Your task to perform on an android device: turn off priority inbox in the gmail app Image 0: 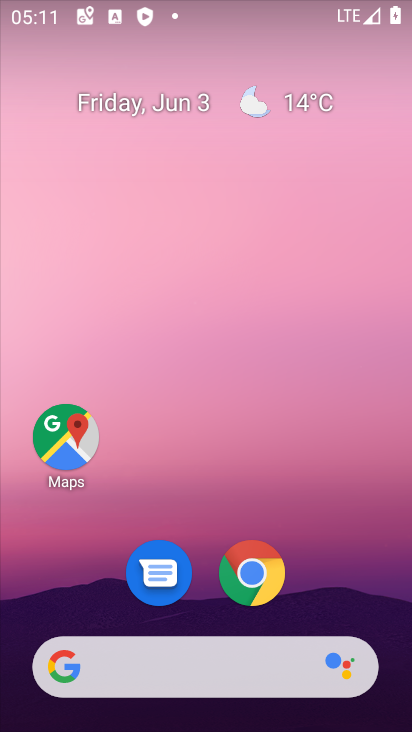
Step 0: drag from (362, 497) to (307, 229)
Your task to perform on an android device: turn off priority inbox in the gmail app Image 1: 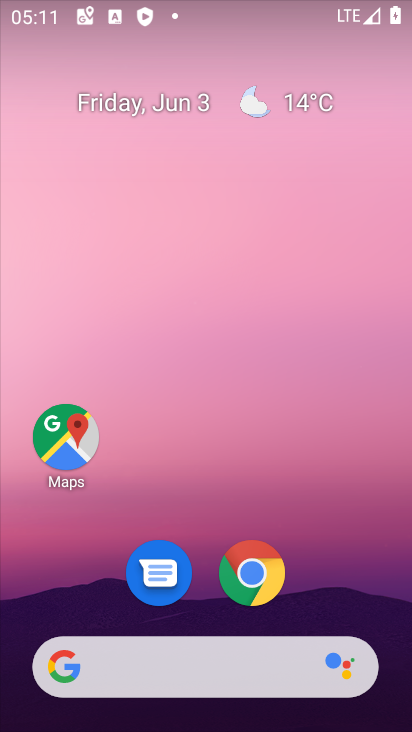
Step 1: drag from (337, 588) to (248, 130)
Your task to perform on an android device: turn off priority inbox in the gmail app Image 2: 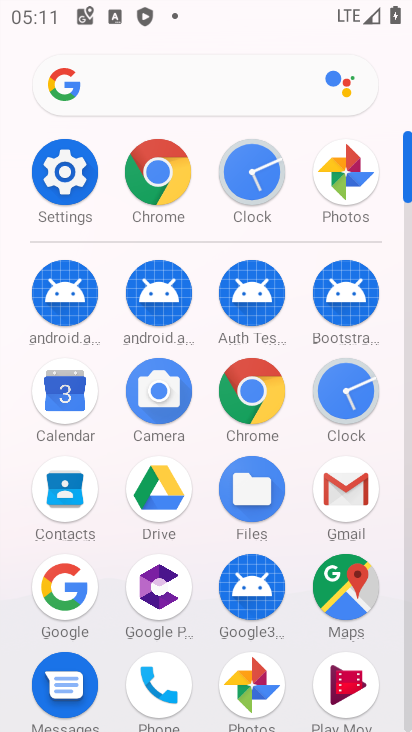
Step 2: click (351, 497)
Your task to perform on an android device: turn off priority inbox in the gmail app Image 3: 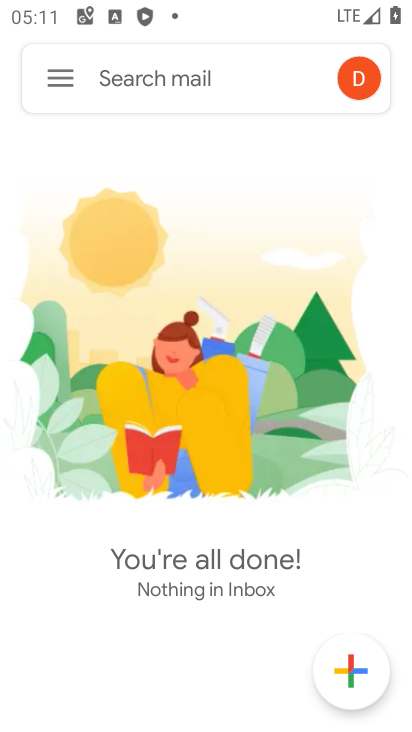
Step 3: click (67, 75)
Your task to perform on an android device: turn off priority inbox in the gmail app Image 4: 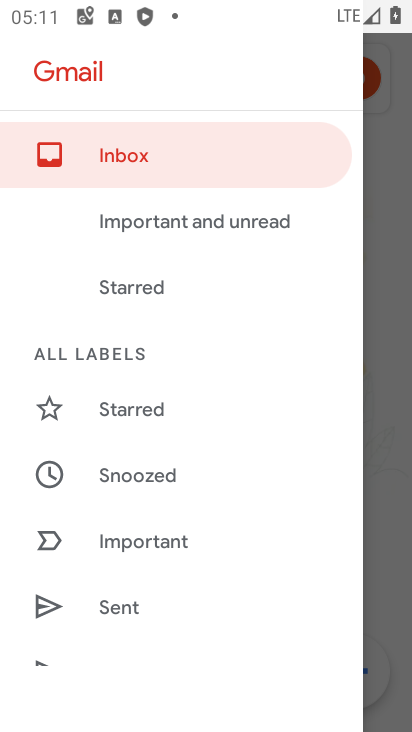
Step 4: click (392, 407)
Your task to perform on an android device: turn off priority inbox in the gmail app Image 5: 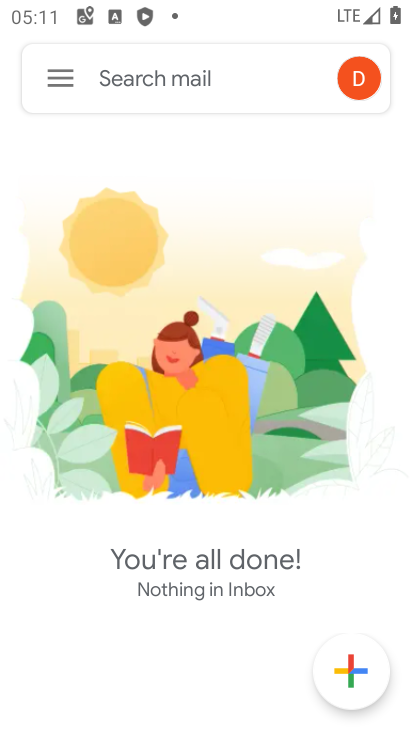
Step 5: click (352, 70)
Your task to perform on an android device: turn off priority inbox in the gmail app Image 6: 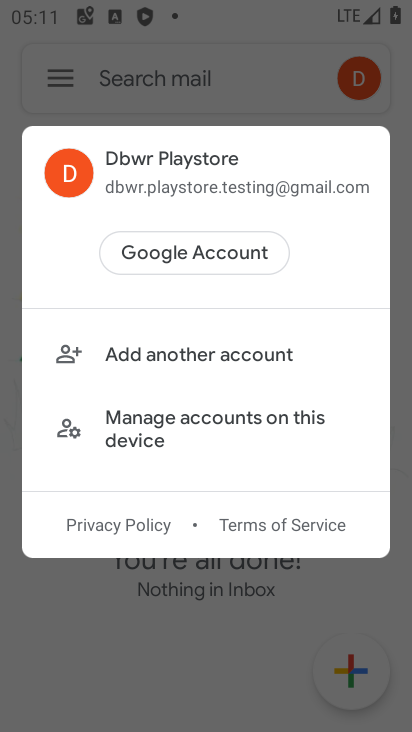
Step 6: click (180, 673)
Your task to perform on an android device: turn off priority inbox in the gmail app Image 7: 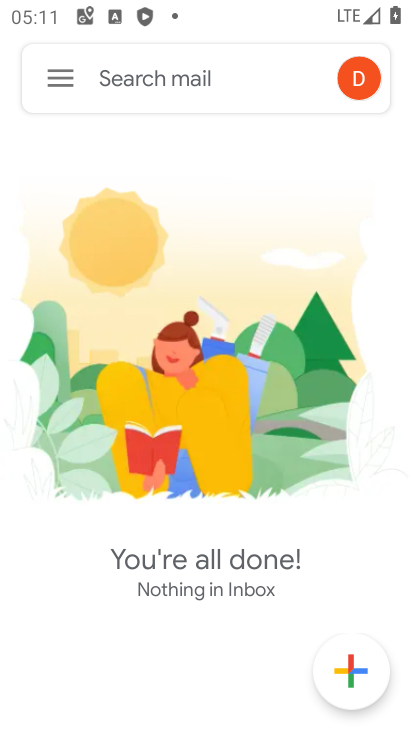
Step 7: click (57, 83)
Your task to perform on an android device: turn off priority inbox in the gmail app Image 8: 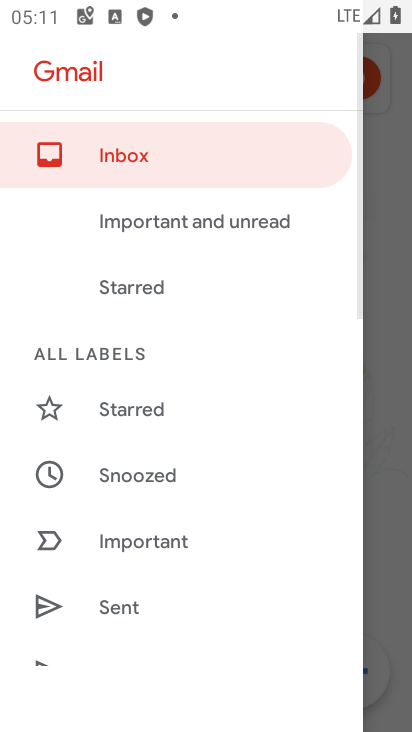
Step 8: drag from (181, 589) to (128, 204)
Your task to perform on an android device: turn off priority inbox in the gmail app Image 9: 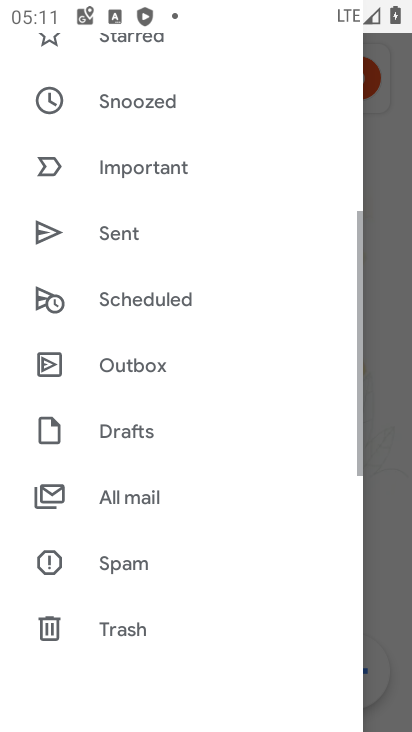
Step 9: drag from (206, 580) to (163, 238)
Your task to perform on an android device: turn off priority inbox in the gmail app Image 10: 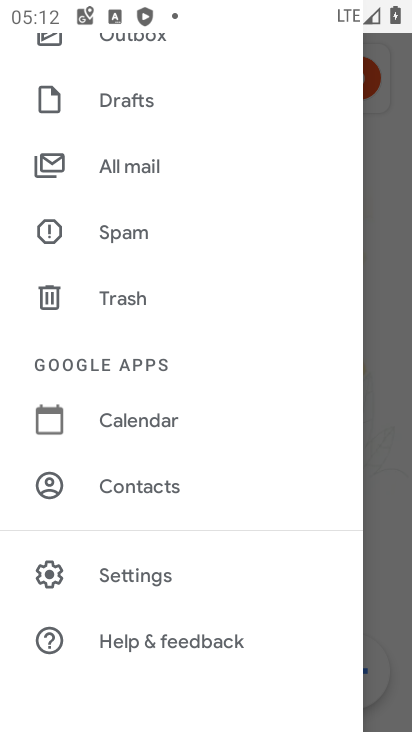
Step 10: click (146, 575)
Your task to perform on an android device: turn off priority inbox in the gmail app Image 11: 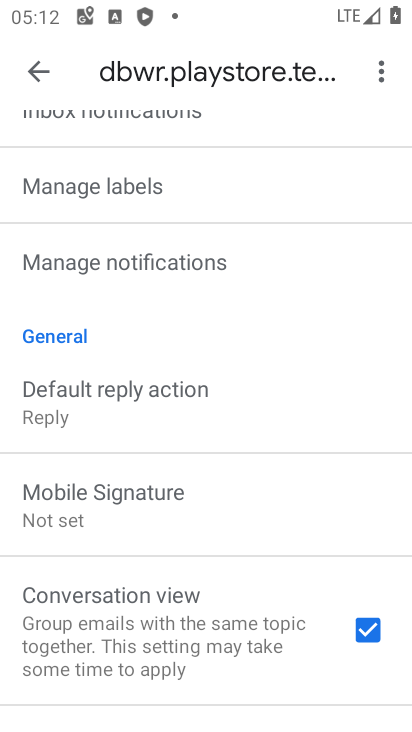
Step 11: drag from (339, 395) to (297, 214)
Your task to perform on an android device: turn off priority inbox in the gmail app Image 12: 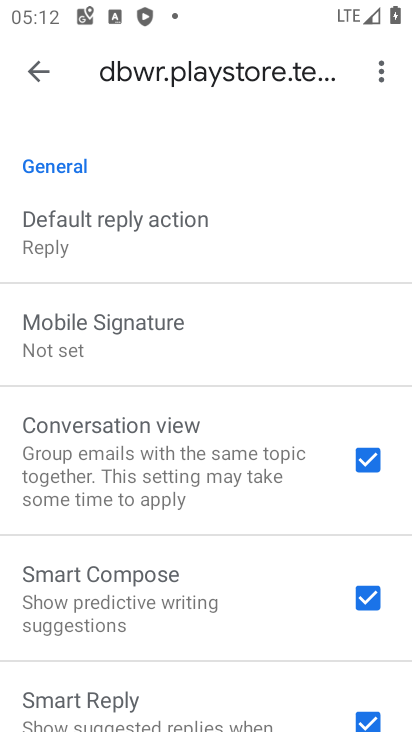
Step 12: drag from (312, 168) to (327, 467)
Your task to perform on an android device: turn off priority inbox in the gmail app Image 13: 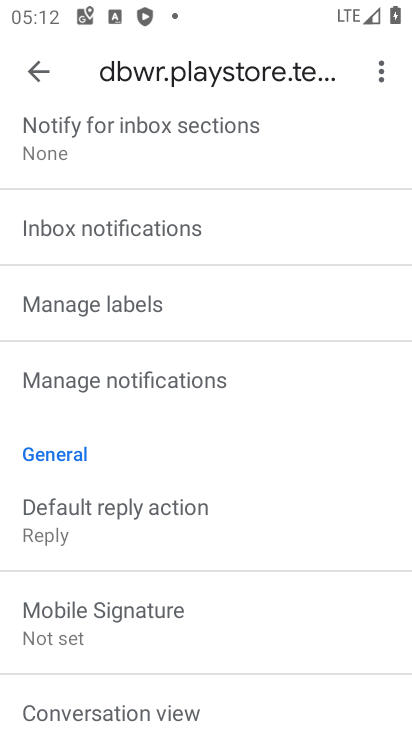
Step 13: drag from (236, 186) to (298, 504)
Your task to perform on an android device: turn off priority inbox in the gmail app Image 14: 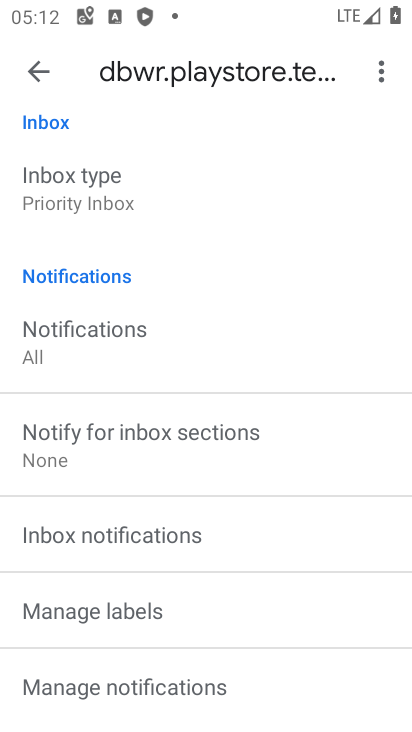
Step 14: click (94, 181)
Your task to perform on an android device: turn off priority inbox in the gmail app Image 15: 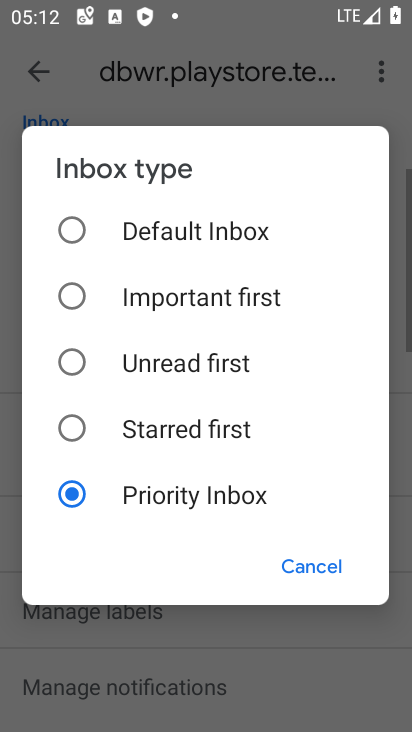
Step 15: click (197, 299)
Your task to perform on an android device: turn off priority inbox in the gmail app Image 16: 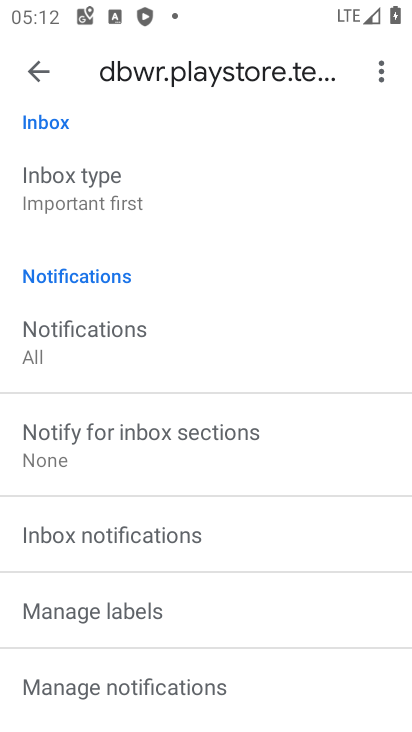
Step 16: task complete